Your task to perform on an android device: open app "Airtel Thanks" Image 0: 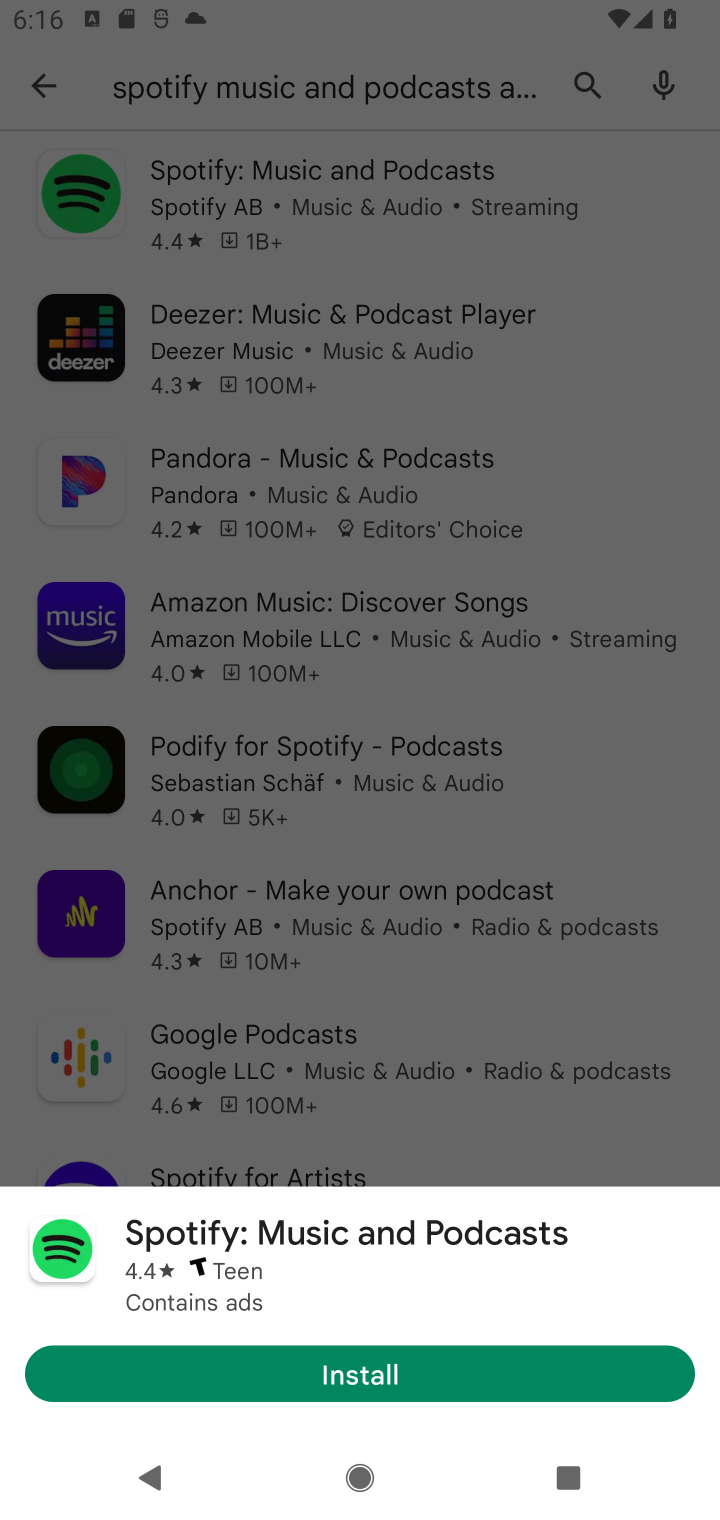
Step 0: press home button
Your task to perform on an android device: open app "Airtel Thanks" Image 1: 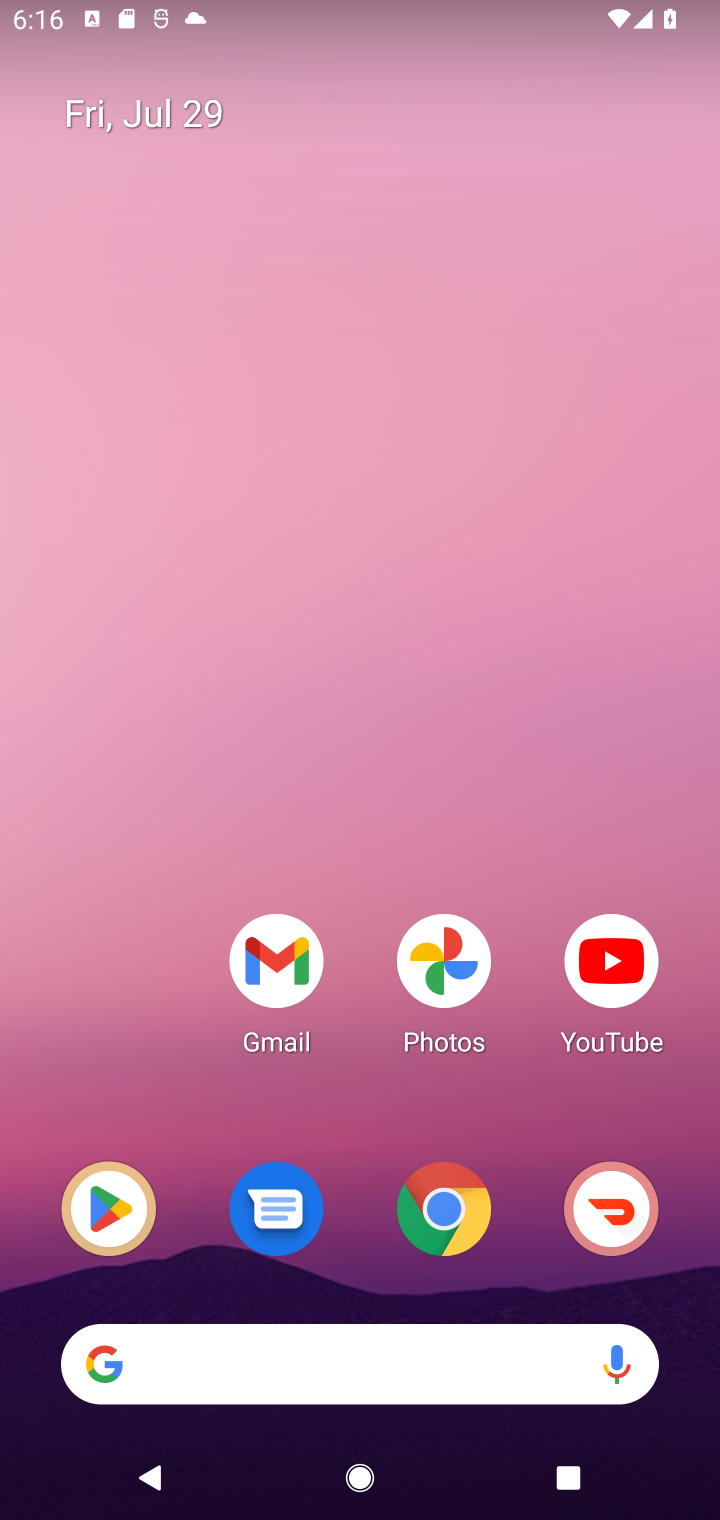
Step 1: drag from (360, 1275) to (396, 82)
Your task to perform on an android device: open app "Airtel Thanks" Image 2: 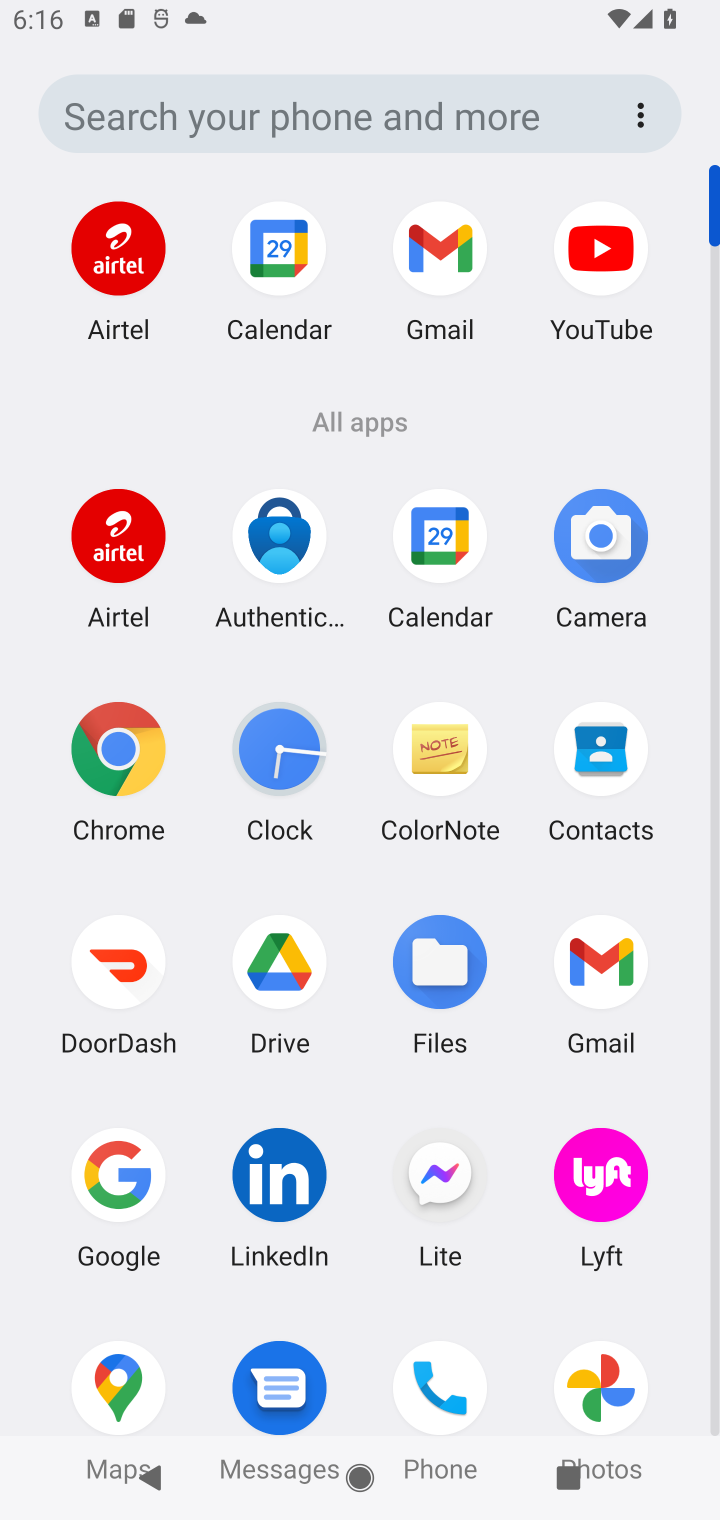
Step 2: click (115, 550)
Your task to perform on an android device: open app "Airtel Thanks" Image 3: 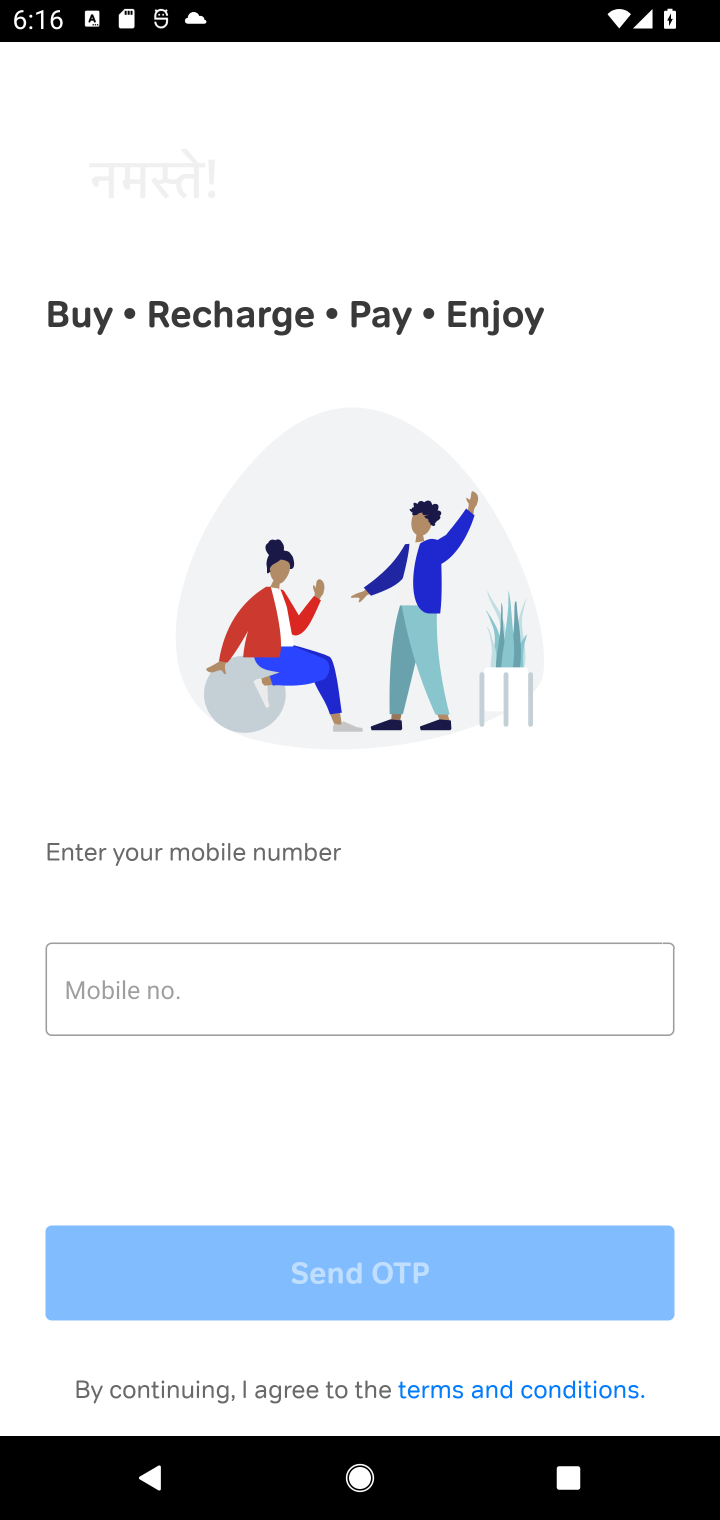
Step 3: task complete